Your task to perform on an android device: open device folders in google photos Image 0: 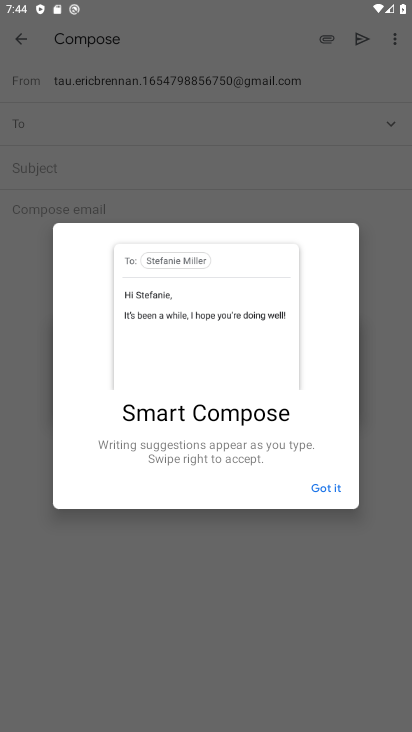
Step 0: press home button
Your task to perform on an android device: open device folders in google photos Image 1: 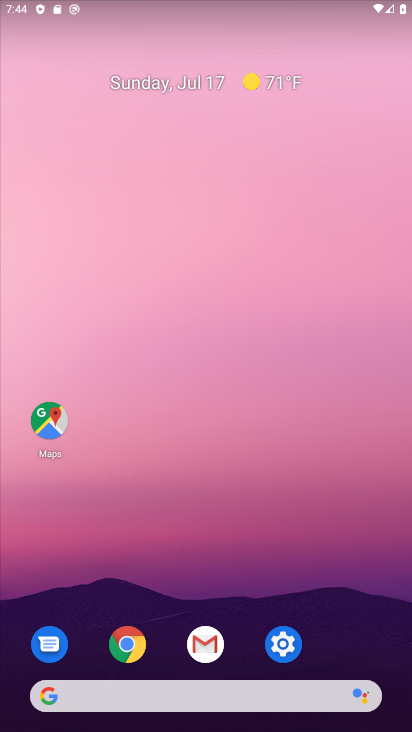
Step 1: drag from (256, 718) to (257, 233)
Your task to perform on an android device: open device folders in google photos Image 2: 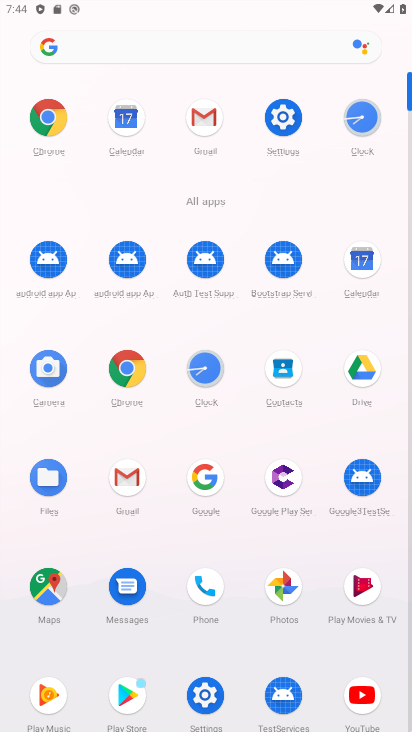
Step 2: click (289, 583)
Your task to perform on an android device: open device folders in google photos Image 3: 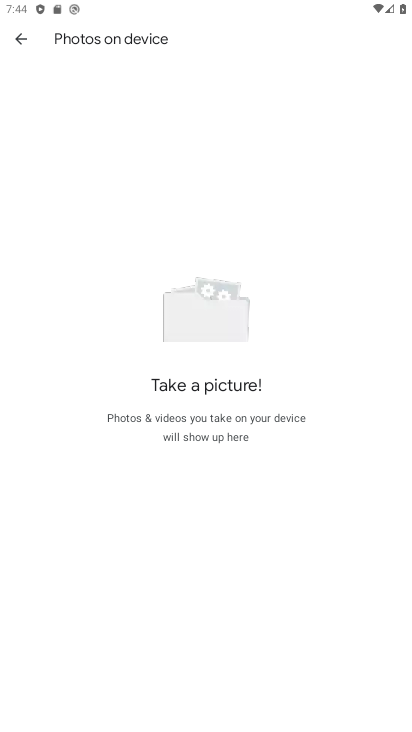
Step 3: click (23, 40)
Your task to perform on an android device: open device folders in google photos Image 4: 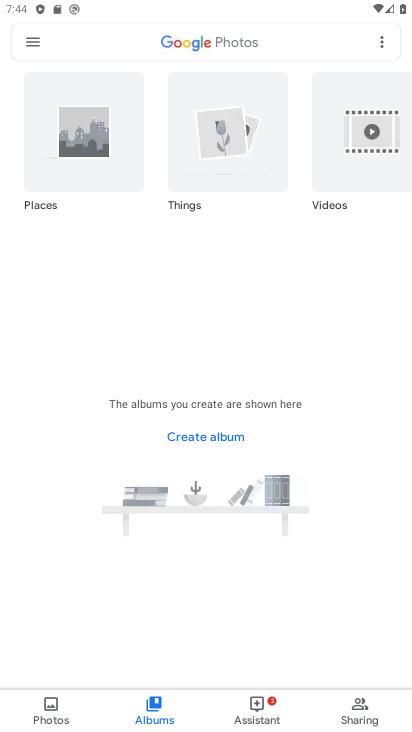
Step 4: click (23, 40)
Your task to perform on an android device: open device folders in google photos Image 5: 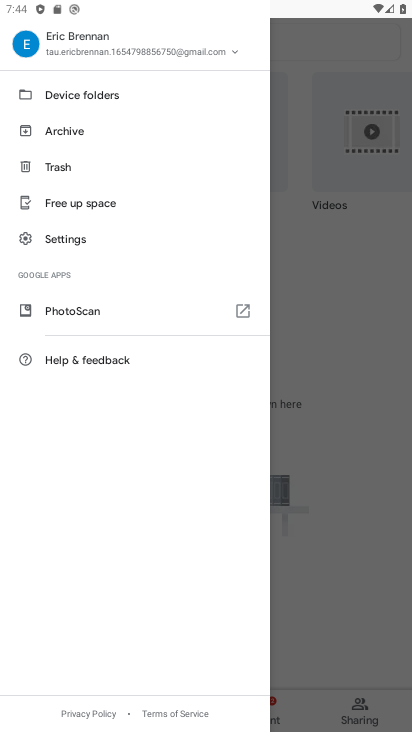
Step 5: click (77, 91)
Your task to perform on an android device: open device folders in google photos Image 6: 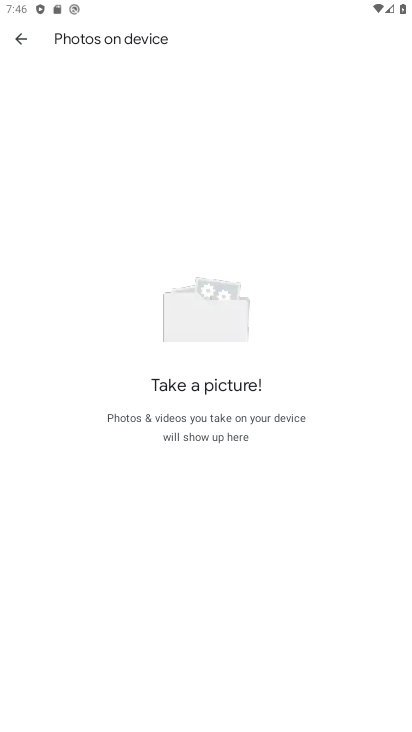
Step 6: task complete